Your task to perform on an android device: Open internet settings Image 0: 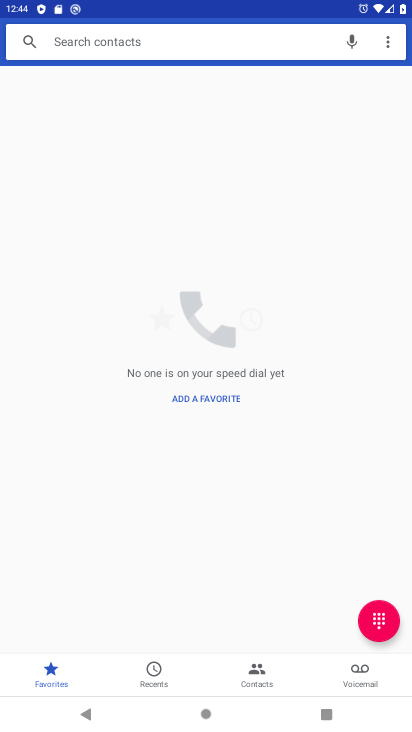
Step 0: press home button
Your task to perform on an android device: Open internet settings Image 1: 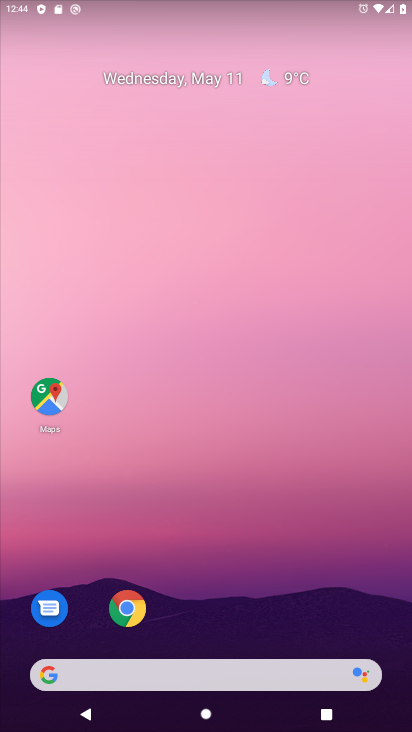
Step 1: drag from (239, 618) to (165, 207)
Your task to perform on an android device: Open internet settings Image 2: 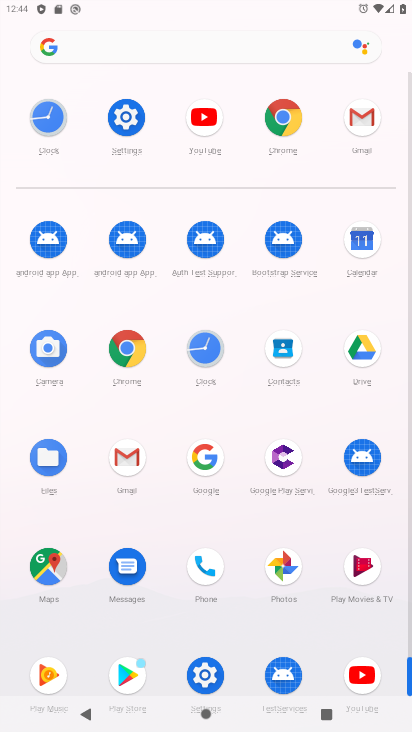
Step 2: click (131, 127)
Your task to perform on an android device: Open internet settings Image 3: 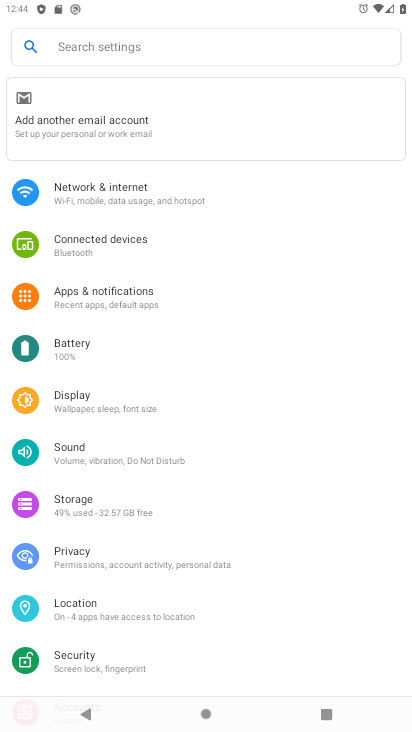
Step 3: click (154, 206)
Your task to perform on an android device: Open internet settings Image 4: 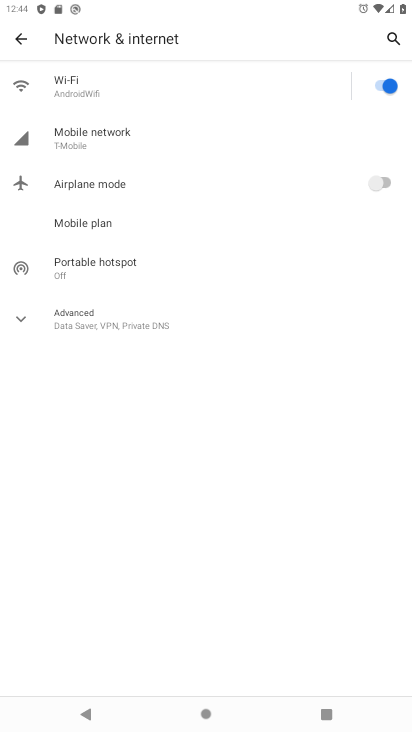
Step 4: click (176, 136)
Your task to perform on an android device: Open internet settings Image 5: 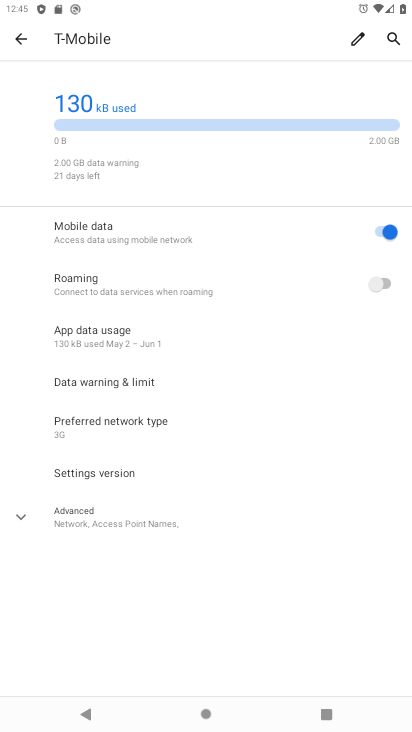
Step 5: click (203, 332)
Your task to perform on an android device: Open internet settings Image 6: 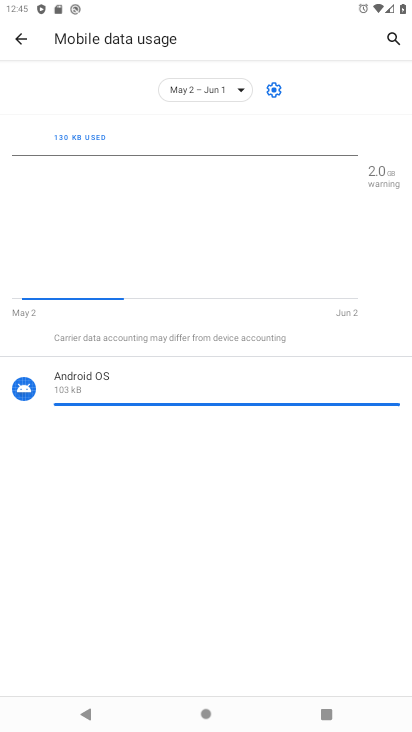
Step 6: task complete